Your task to perform on an android device: Open the web browser Image 0: 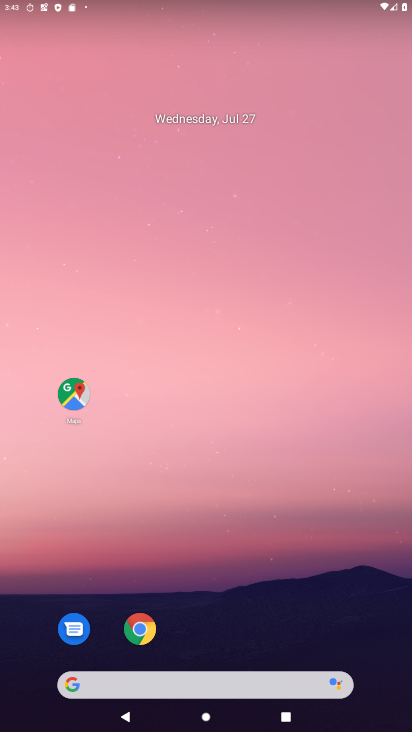
Step 0: drag from (325, 571) to (279, 21)
Your task to perform on an android device: Open the web browser Image 1: 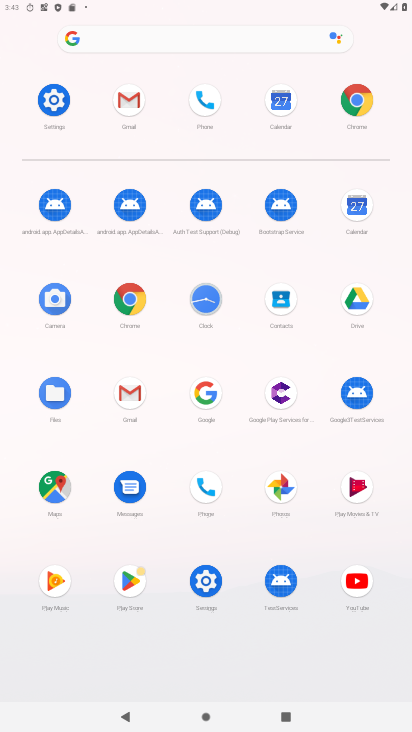
Step 1: click (361, 103)
Your task to perform on an android device: Open the web browser Image 2: 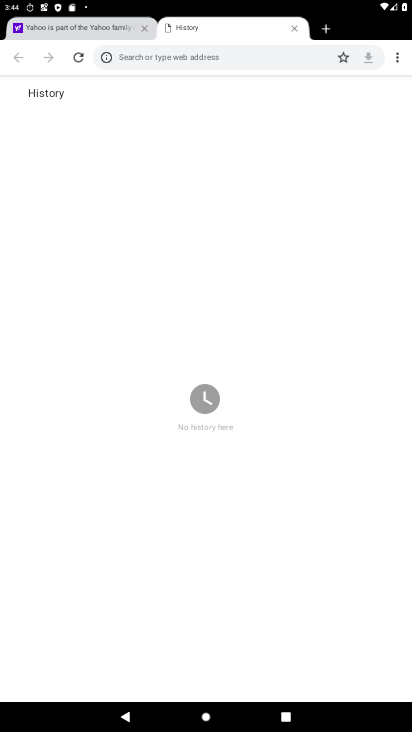
Step 2: task complete